Your task to perform on an android device: turn off sleep mode Image 0: 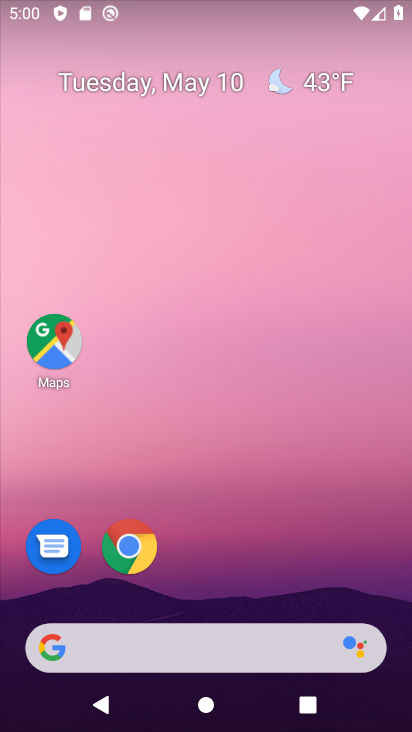
Step 0: drag from (262, 707) to (126, 70)
Your task to perform on an android device: turn off sleep mode Image 1: 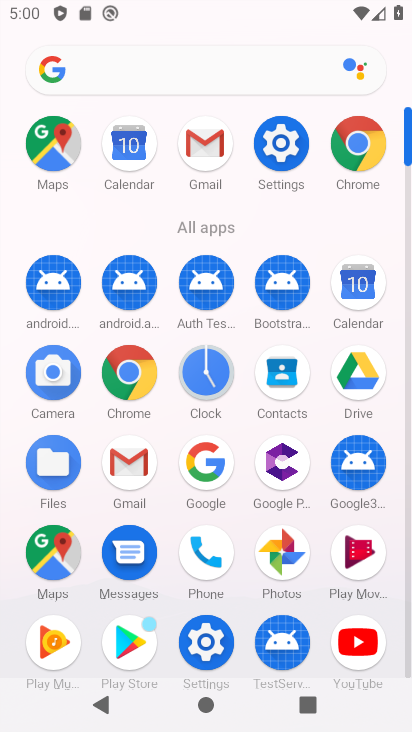
Step 1: click (278, 145)
Your task to perform on an android device: turn off sleep mode Image 2: 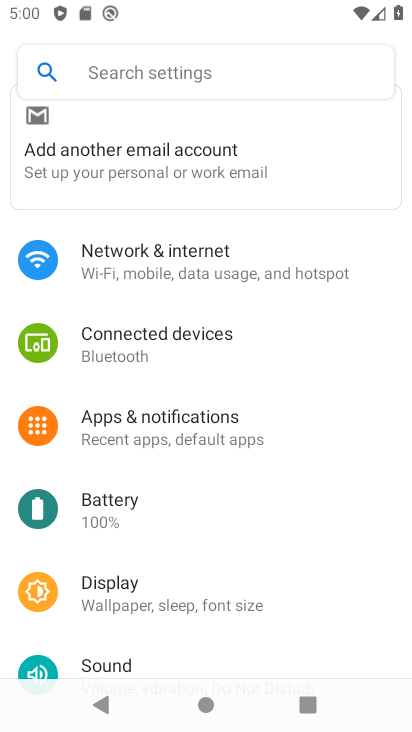
Step 2: drag from (118, 538) to (140, 287)
Your task to perform on an android device: turn off sleep mode Image 3: 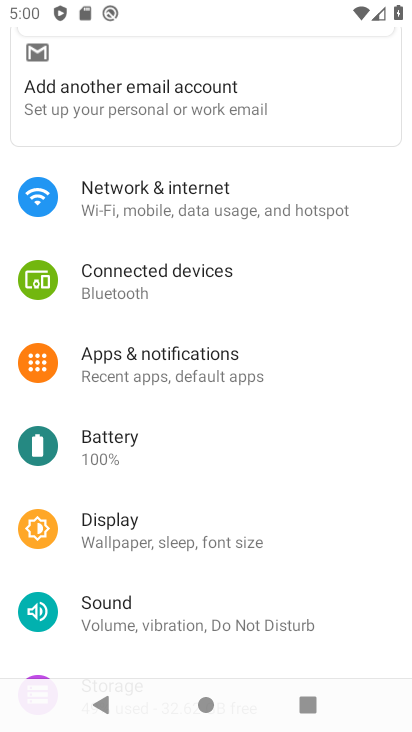
Step 3: drag from (100, 525) to (130, 350)
Your task to perform on an android device: turn off sleep mode Image 4: 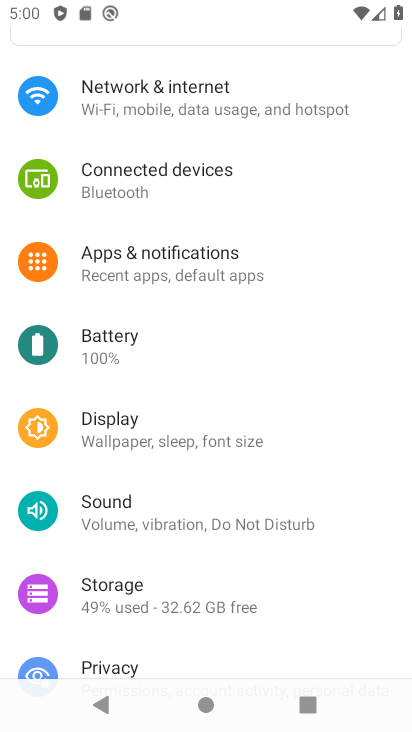
Step 4: click (112, 441)
Your task to perform on an android device: turn off sleep mode Image 5: 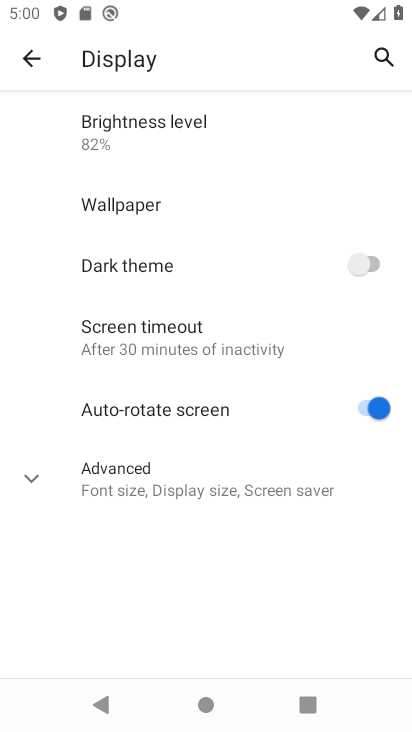
Step 5: click (134, 338)
Your task to perform on an android device: turn off sleep mode Image 6: 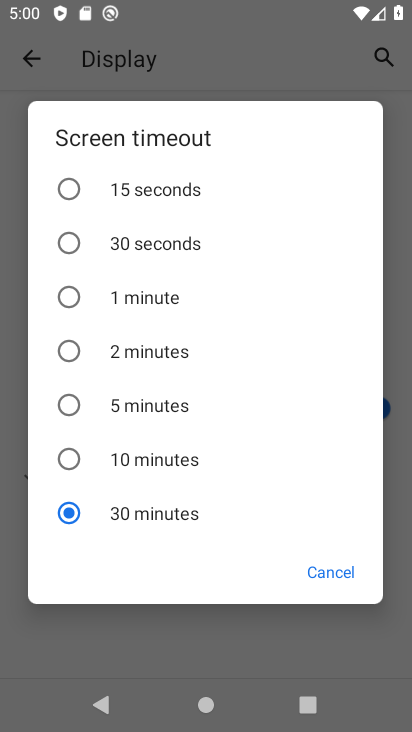
Step 6: task complete